Your task to perform on an android device: toggle notification dots Image 0: 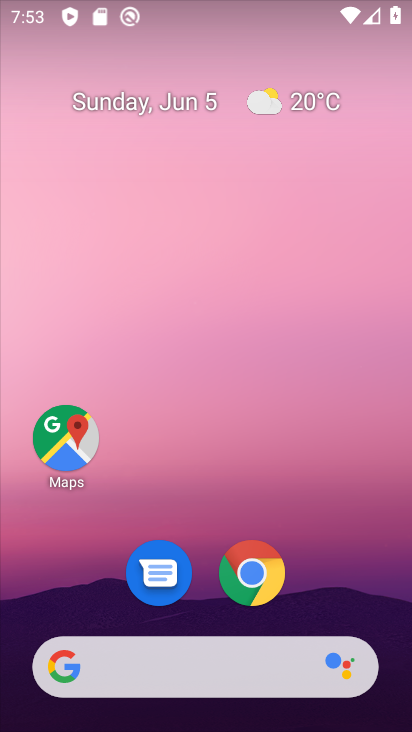
Step 0: click (404, 681)
Your task to perform on an android device: toggle notification dots Image 1: 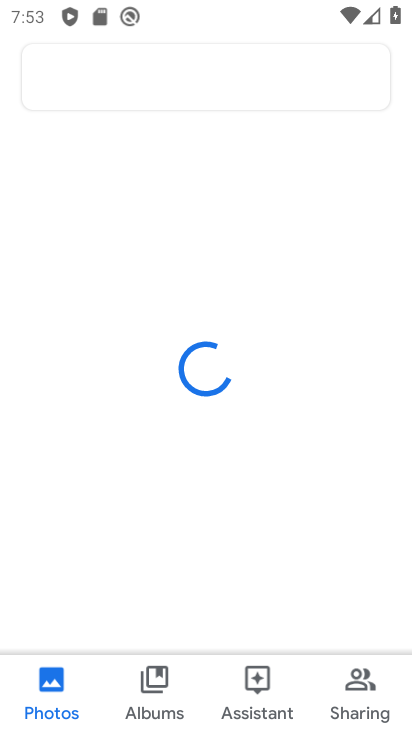
Step 1: press home button
Your task to perform on an android device: toggle notification dots Image 2: 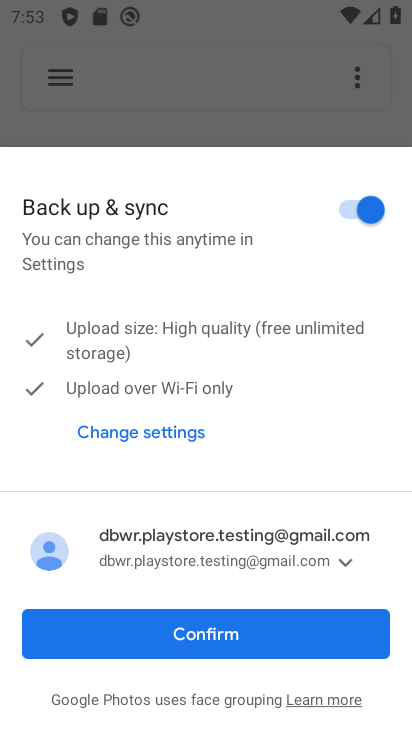
Step 2: press home button
Your task to perform on an android device: toggle notification dots Image 3: 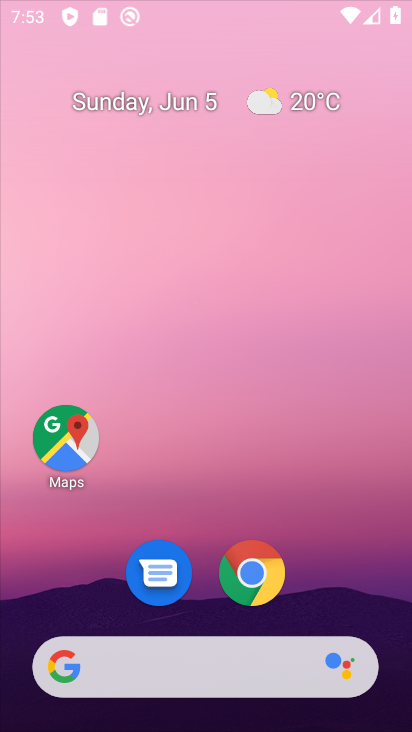
Step 3: press home button
Your task to perform on an android device: toggle notification dots Image 4: 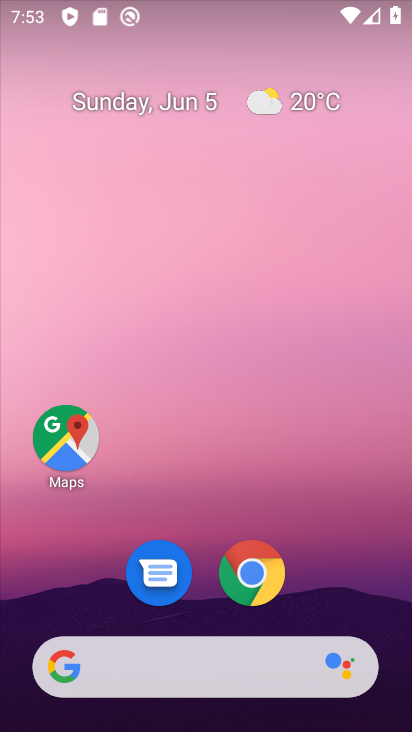
Step 4: drag from (197, 613) to (115, 45)
Your task to perform on an android device: toggle notification dots Image 5: 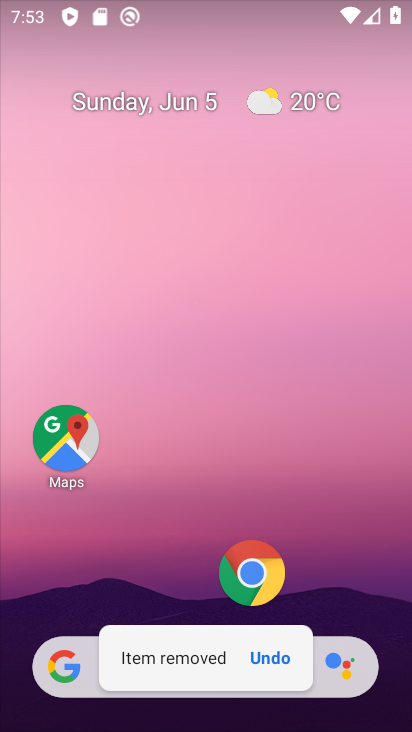
Step 5: drag from (175, 607) to (125, 47)
Your task to perform on an android device: toggle notification dots Image 6: 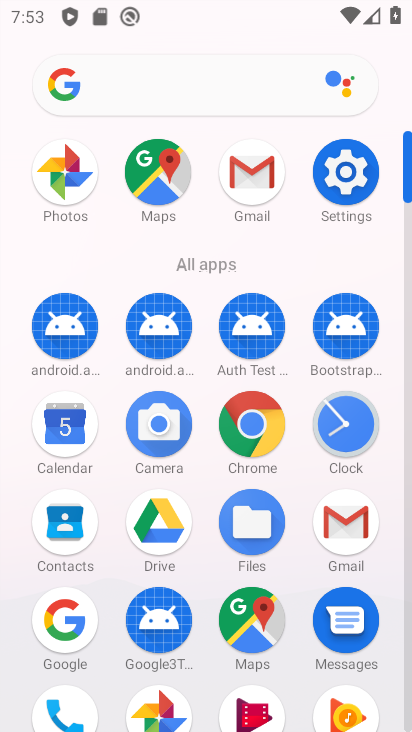
Step 6: click (318, 166)
Your task to perform on an android device: toggle notification dots Image 7: 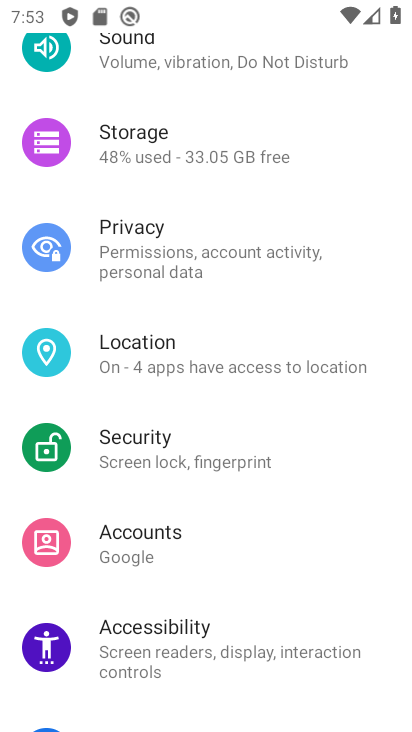
Step 7: drag from (318, 166) to (349, 417)
Your task to perform on an android device: toggle notification dots Image 8: 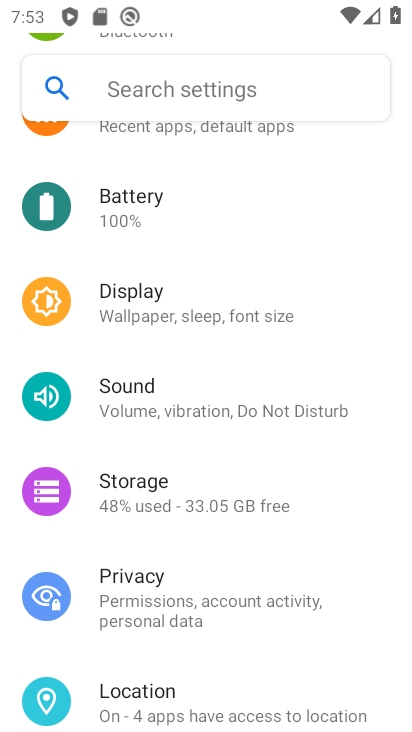
Step 8: drag from (208, 206) to (149, 699)
Your task to perform on an android device: toggle notification dots Image 9: 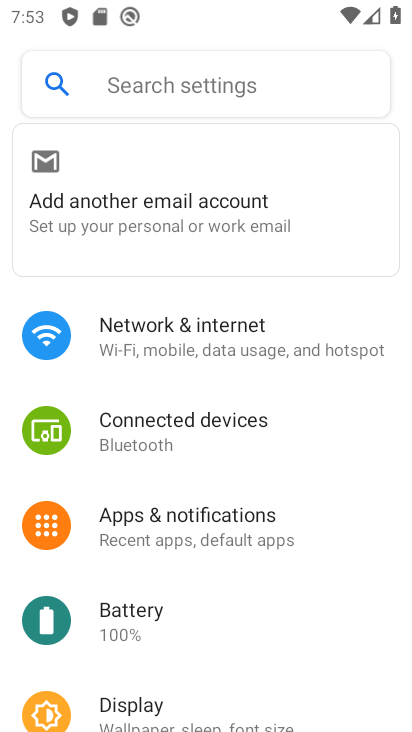
Step 9: click (192, 541)
Your task to perform on an android device: toggle notification dots Image 10: 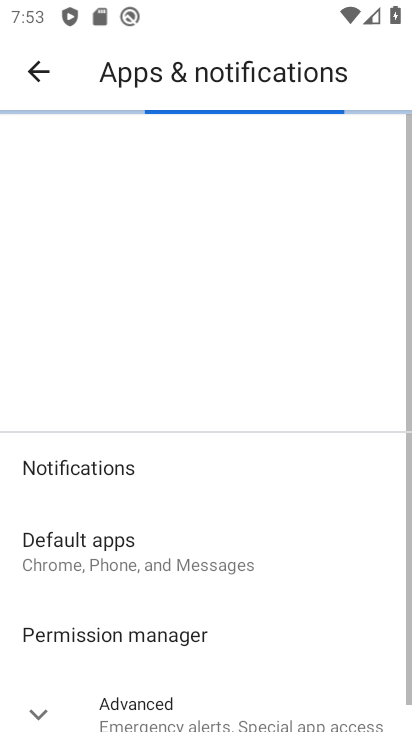
Step 10: click (192, 541)
Your task to perform on an android device: toggle notification dots Image 11: 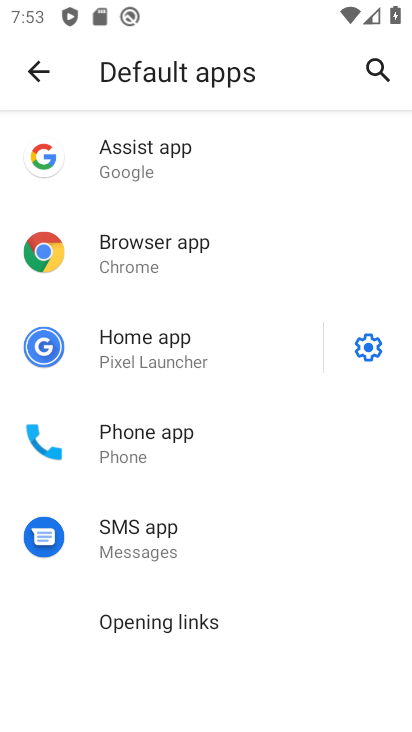
Step 11: click (46, 65)
Your task to perform on an android device: toggle notification dots Image 12: 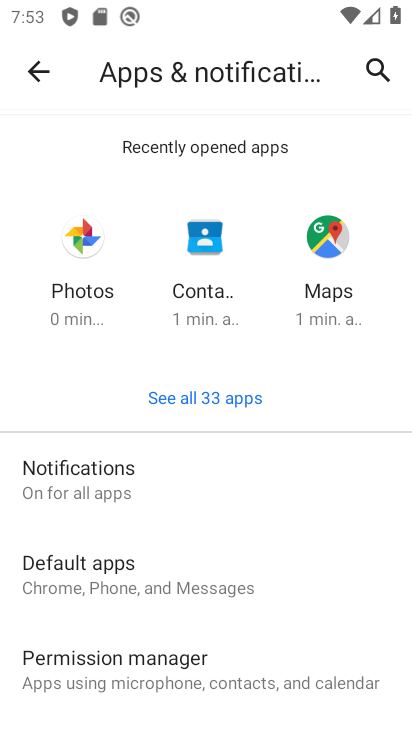
Step 12: click (103, 452)
Your task to perform on an android device: toggle notification dots Image 13: 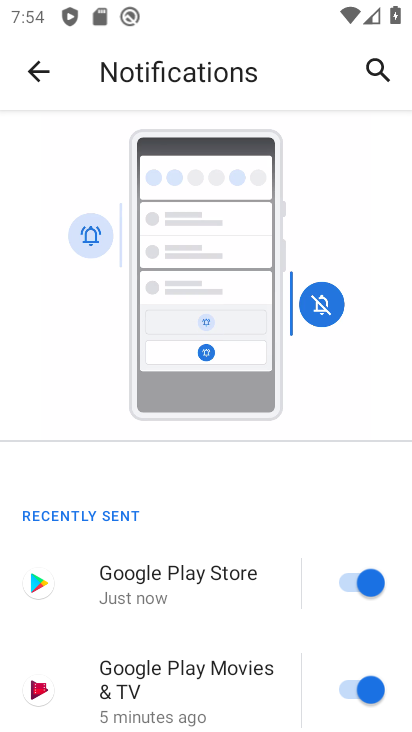
Step 13: drag from (209, 484) to (153, 37)
Your task to perform on an android device: toggle notification dots Image 14: 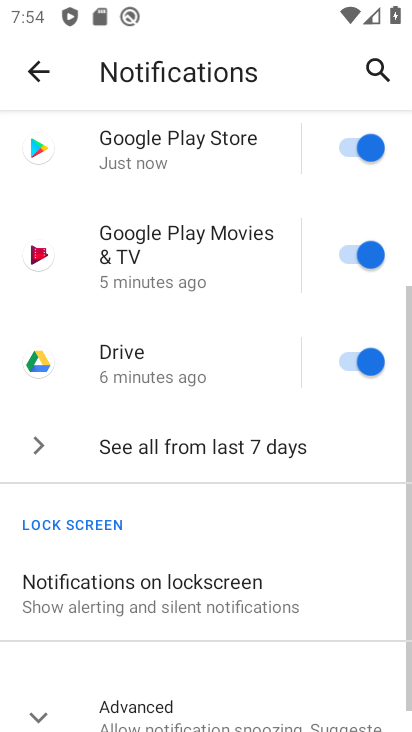
Step 14: drag from (249, 586) to (133, 62)
Your task to perform on an android device: toggle notification dots Image 15: 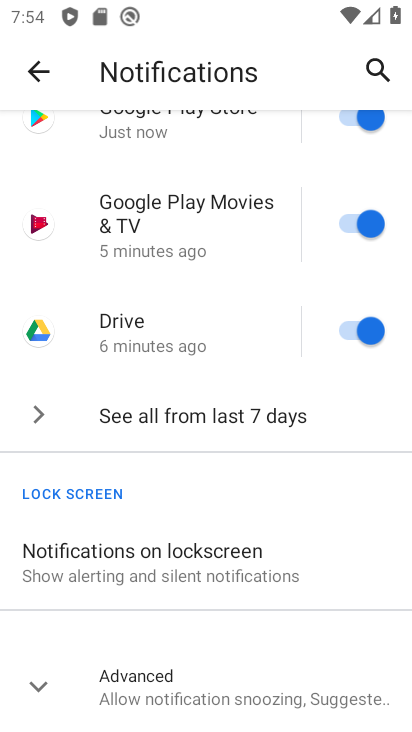
Step 15: click (58, 672)
Your task to perform on an android device: toggle notification dots Image 16: 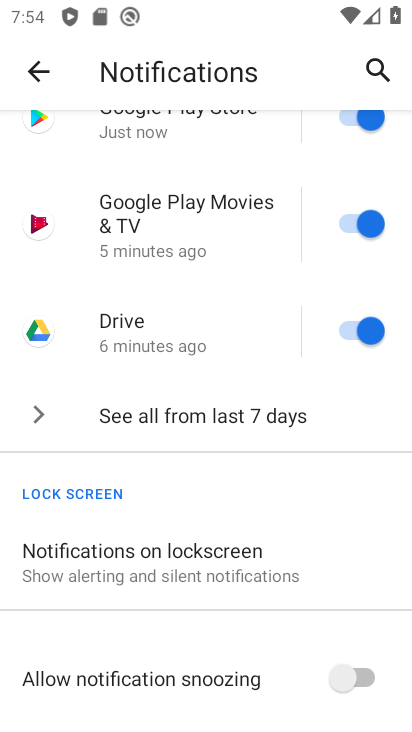
Step 16: drag from (202, 633) to (227, 76)
Your task to perform on an android device: toggle notification dots Image 17: 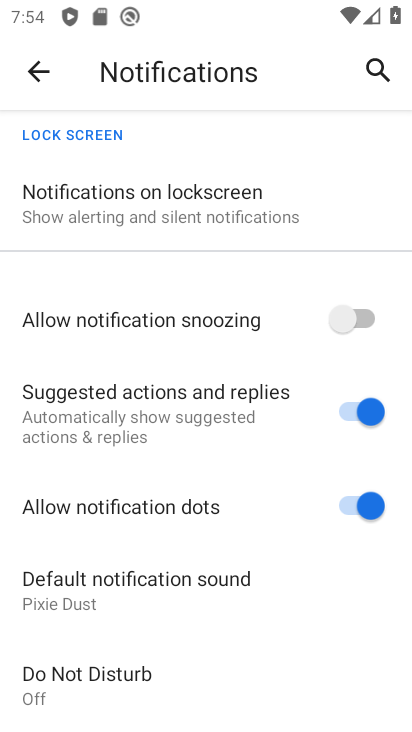
Step 17: click (358, 512)
Your task to perform on an android device: toggle notification dots Image 18: 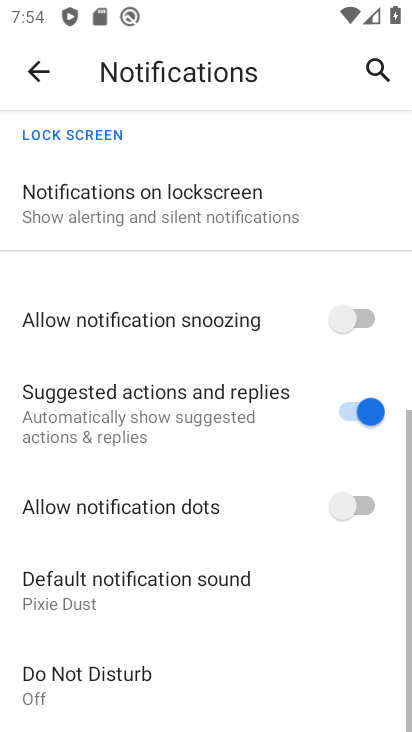
Step 18: task complete